Your task to perform on an android device: Open Yahoo.com Image 0: 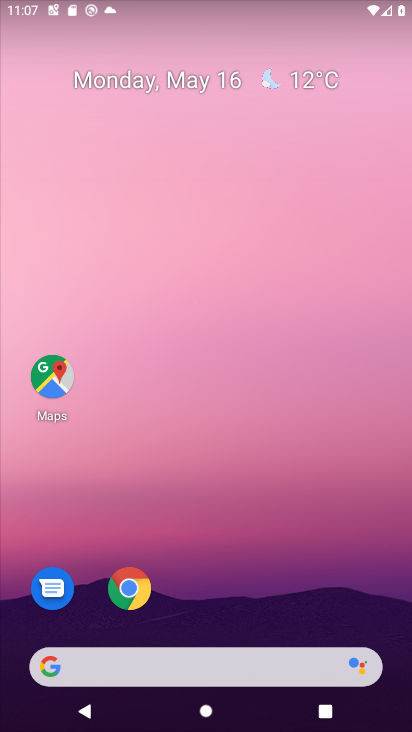
Step 0: drag from (200, 603) to (265, 66)
Your task to perform on an android device: Open Yahoo.com Image 1: 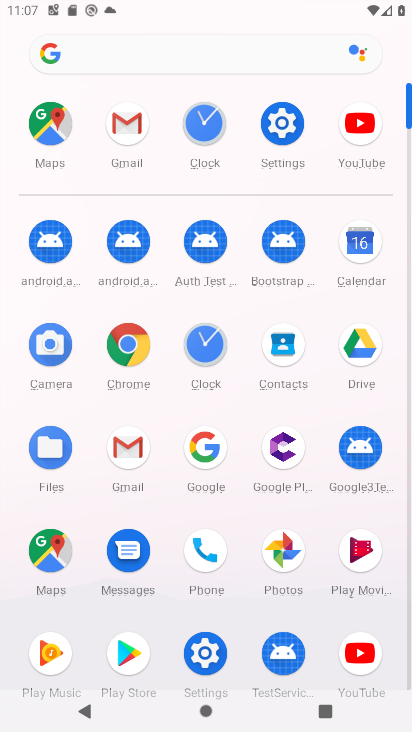
Step 1: click (126, 336)
Your task to perform on an android device: Open Yahoo.com Image 2: 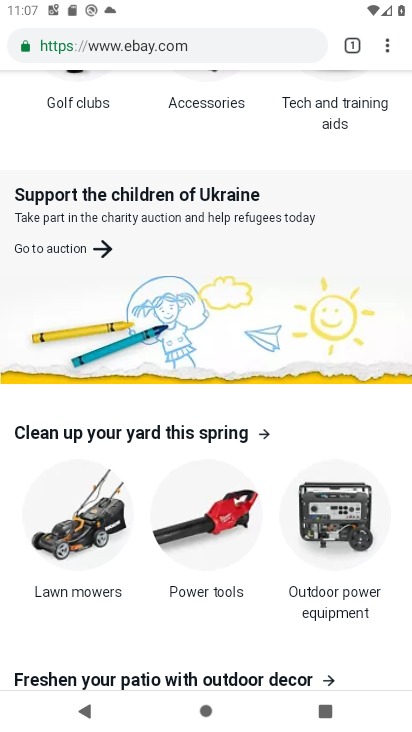
Step 2: click (347, 38)
Your task to perform on an android device: Open Yahoo.com Image 3: 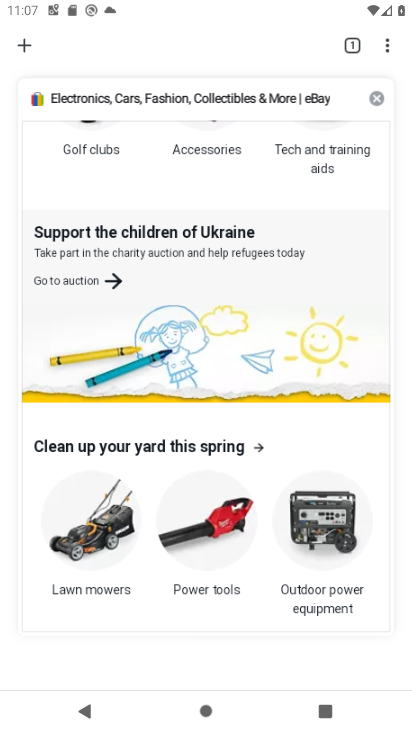
Step 3: click (376, 98)
Your task to perform on an android device: Open Yahoo.com Image 4: 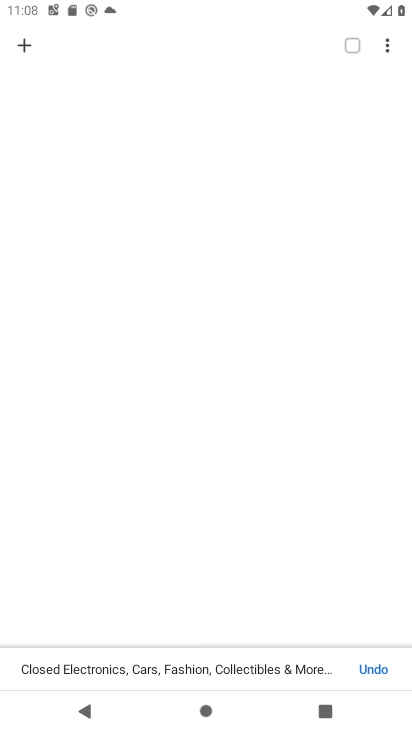
Step 4: click (25, 45)
Your task to perform on an android device: Open Yahoo.com Image 5: 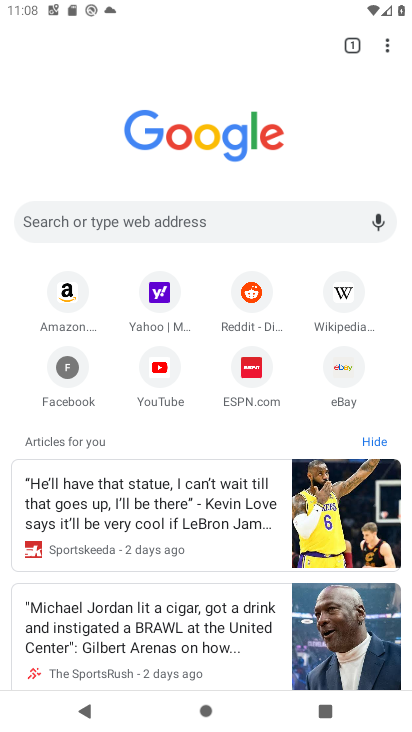
Step 5: click (157, 291)
Your task to perform on an android device: Open Yahoo.com Image 6: 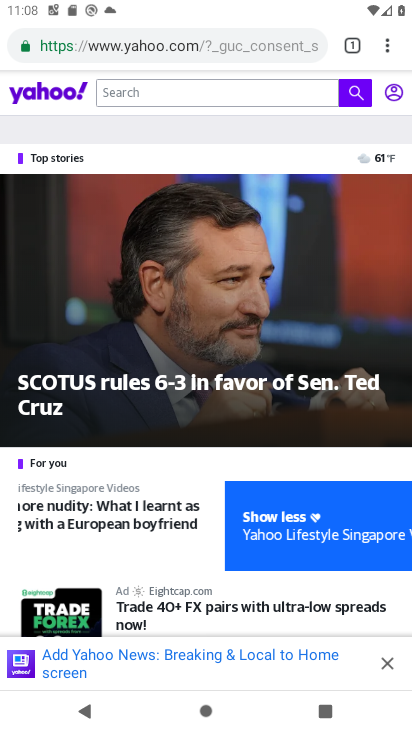
Step 6: task complete